Your task to perform on an android device: toggle notifications settings in the gmail app Image 0: 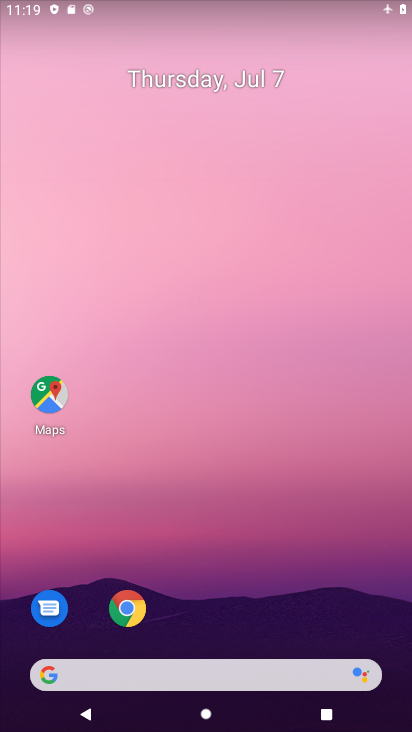
Step 0: drag from (211, 628) to (262, 9)
Your task to perform on an android device: toggle notifications settings in the gmail app Image 1: 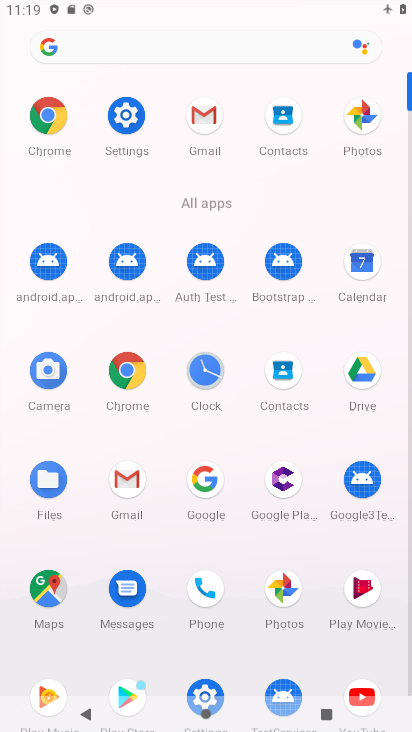
Step 1: click (127, 481)
Your task to perform on an android device: toggle notifications settings in the gmail app Image 2: 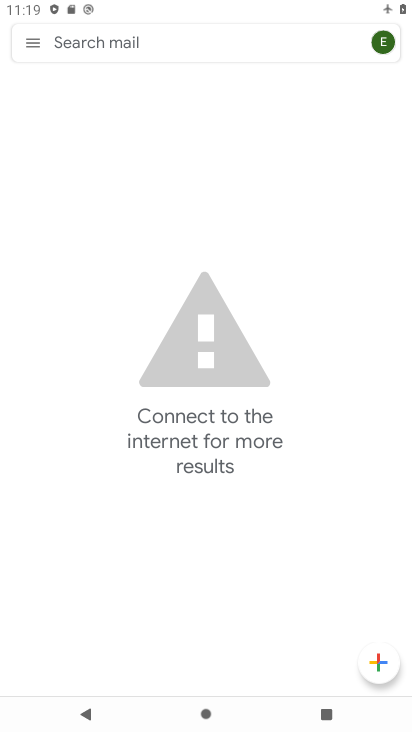
Step 2: click (23, 37)
Your task to perform on an android device: toggle notifications settings in the gmail app Image 3: 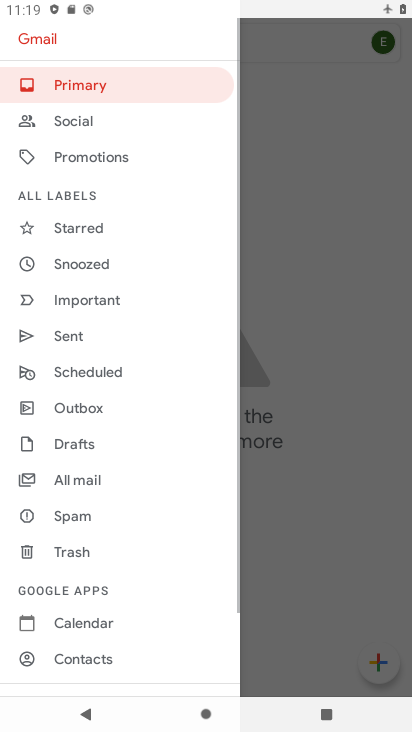
Step 3: drag from (92, 641) to (141, 220)
Your task to perform on an android device: toggle notifications settings in the gmail app Image 4: 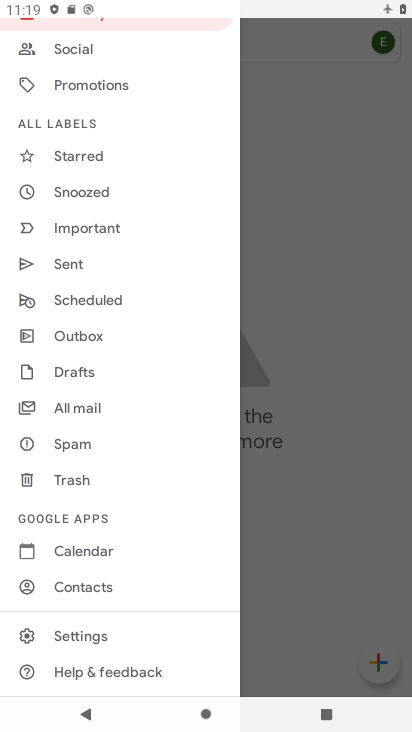
Step 4: click (87, 640)
Your task to perform on an android device: toggle notifications settings in the gmail app Image 5: 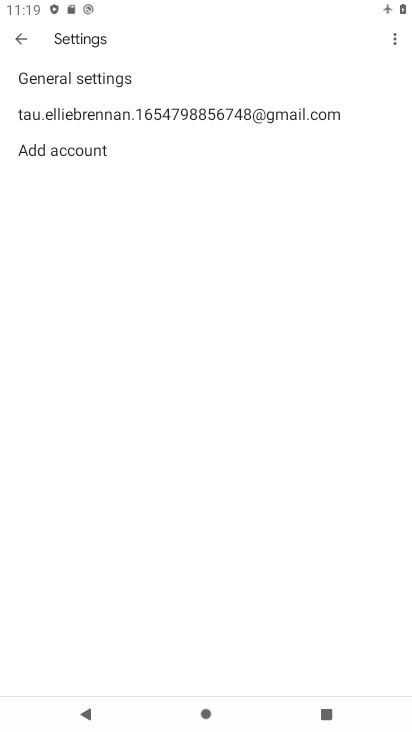
Step 5: click (116, 78)
Your task to perform on an android device: toggle notifications settings in the gmail app Image 6: 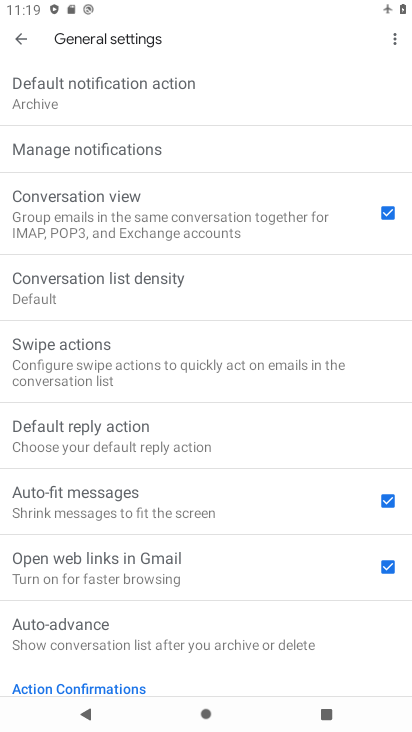
Step 6: click (97, 156)
Your task to perform on an android device: toggle notifications settings in the gmail app Image 7: 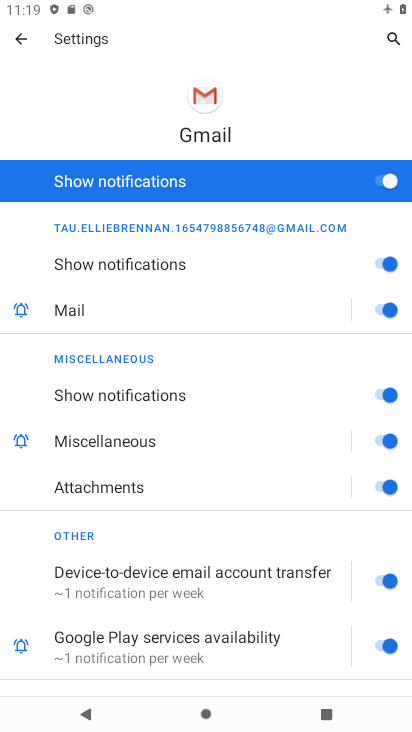
Step 7: click (367, 179)
Your task to perform on an android device: toggle notifications settings in the gmail app Image 8: 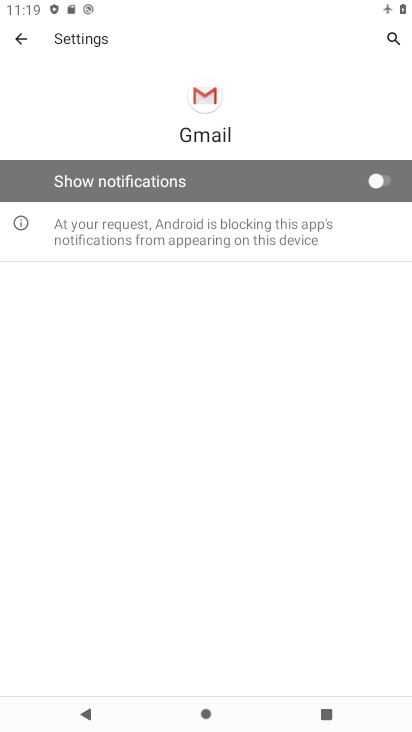
Step 8: task complete